Your task to perform on an android device: check storage Image 0: 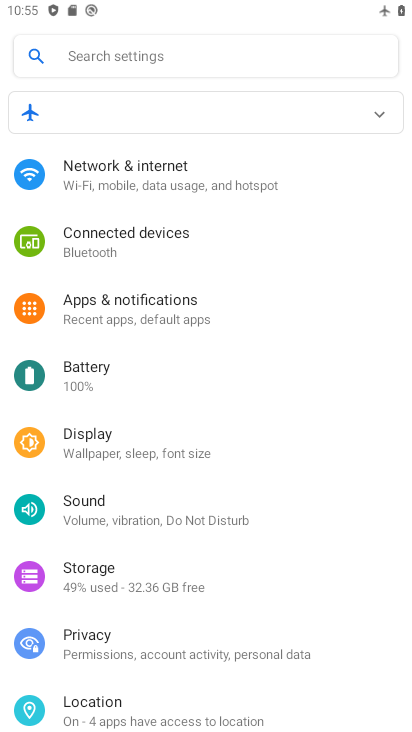
Step 0: press home button
Your task to perform on an android device: check storage Image 1: 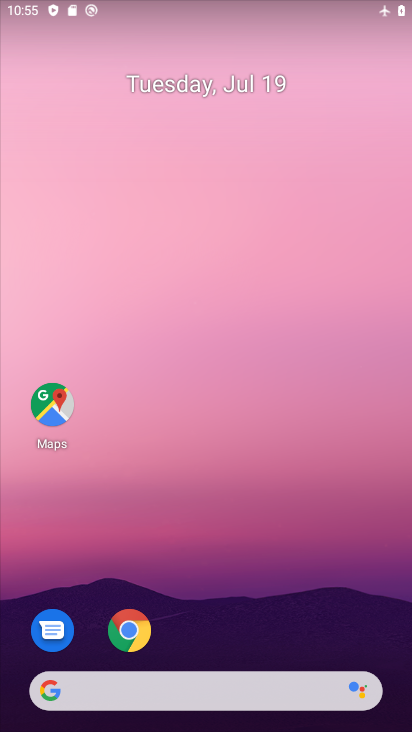
Step 1: drag from (179, 664) to (179, 183)
Your task to perform on an android device: check storage Image 2: 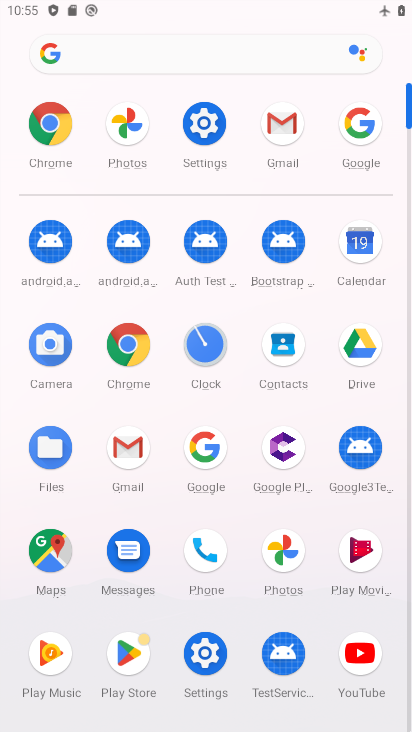
Step 2: click (201, 120)
Your task to perform on an android device: check storage Image 3: 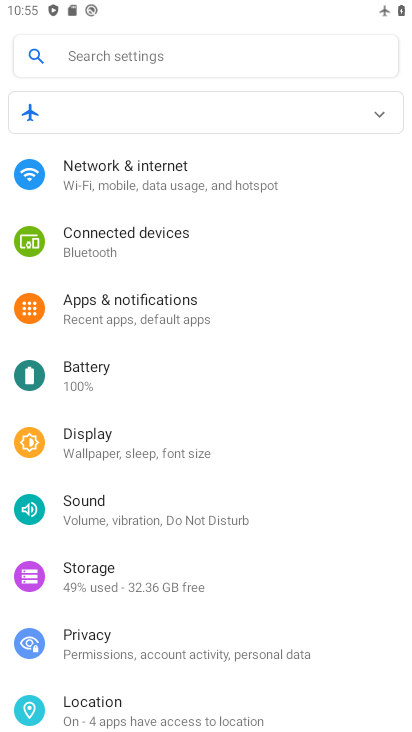
Step 3: drag from (115, 687) to (130, 275)
Your task to perform on an android device: check storage Image 4: 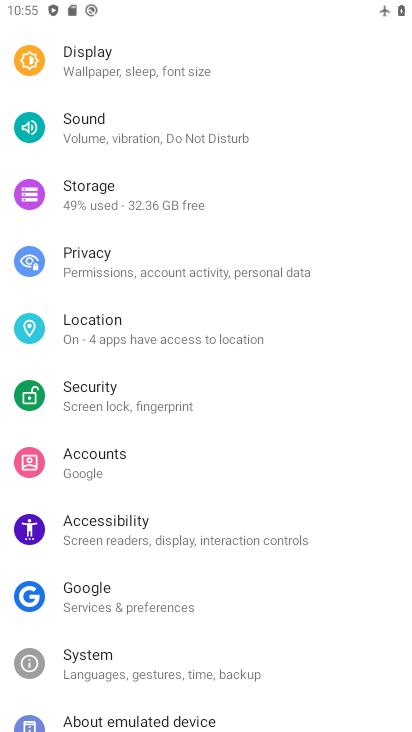
Step 4: drag from (111, 708) to (112, 291)
Your task to perform on an android device: check storage Image 5: 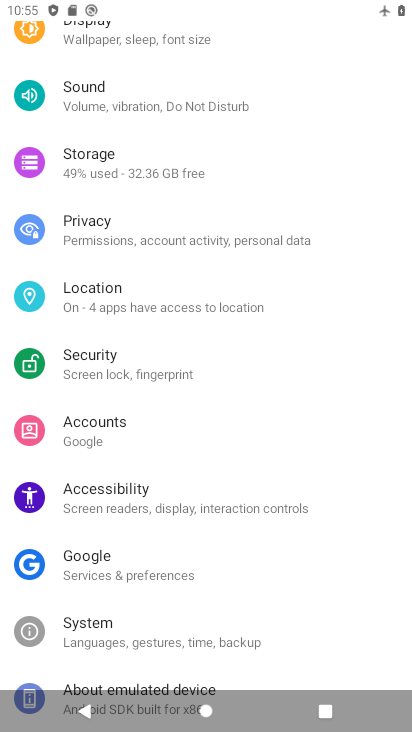
Step 5: drag from (147, 109) to (147, 432)
Your task to perform on an android device: check storage Image 6: 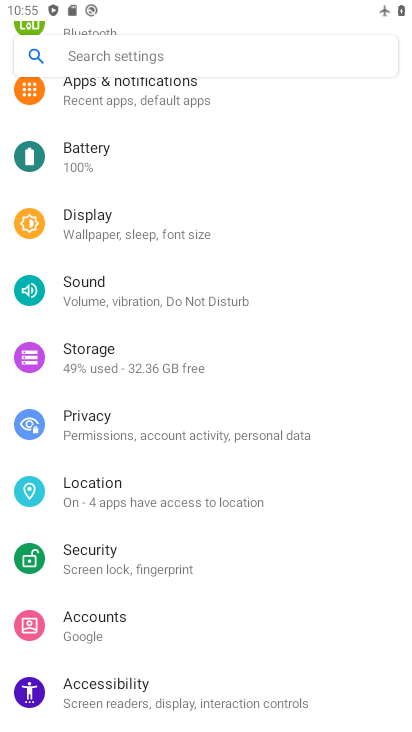
Step 6: click (95, 352)
Your task to perform on an android device: check storage Image 7: 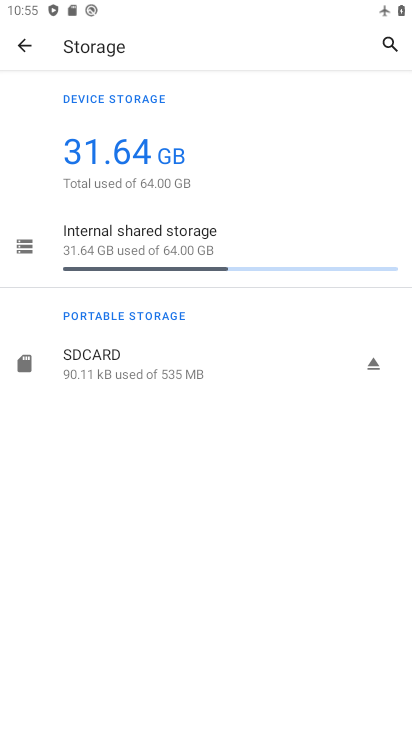
Step 7: task complete